Your task to perform on an android device: Open calendar and show me the first week of next month Image 0: 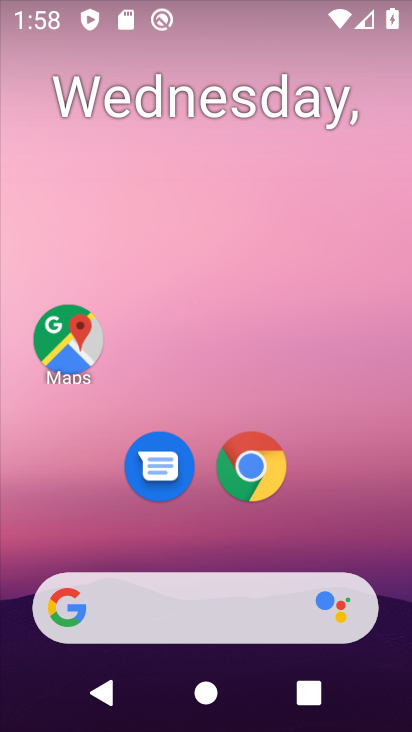
Step 0: drag from (338, 564) to (302, 133)
Your task to perform on an android device: Open calendar and show me the first week of next month Image 1: 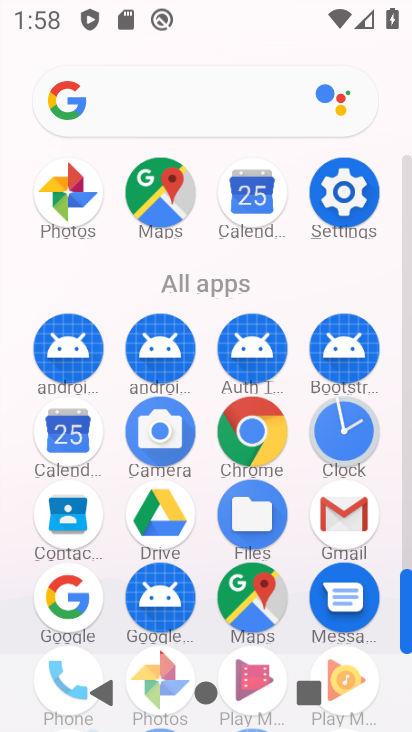
Step 1: click (61, 436)
Your task to perform on an android device: Open calendar and show me the first week of next month Image 2: 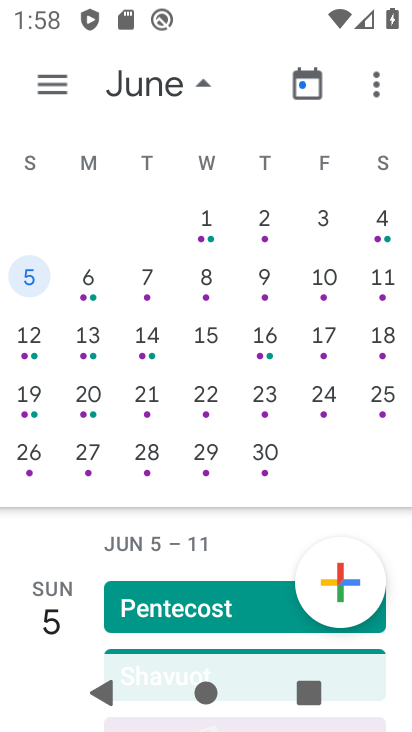
Step 2: drag from (254, 543) to (254, 280)
Your task to perform on an android device: Open calendar and show me the first week of next month Image 3: 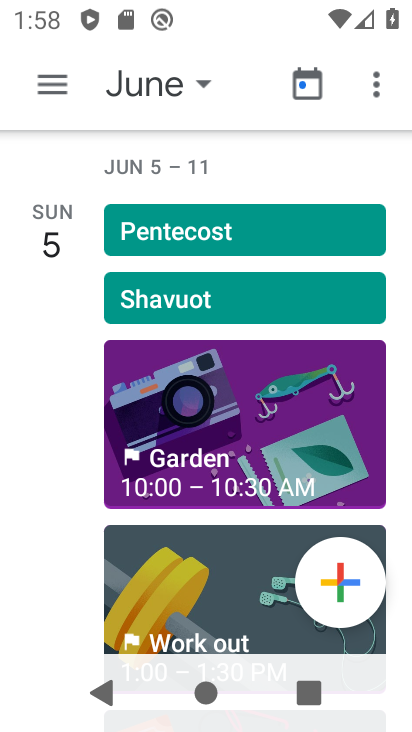
Step 3: click (166, 84)
Your task to perform on an android device: Open calendar and show me the first week of next month Image 4: 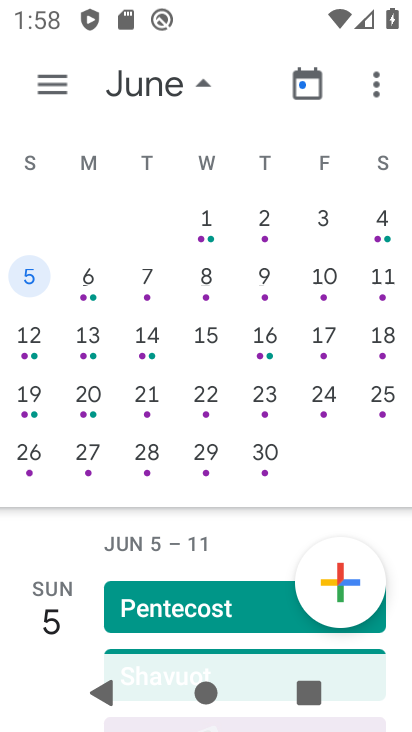
Step 4: click (209, 216)
Your task to perform on an android device: Open calendar and show me the first week of next month Image 5: 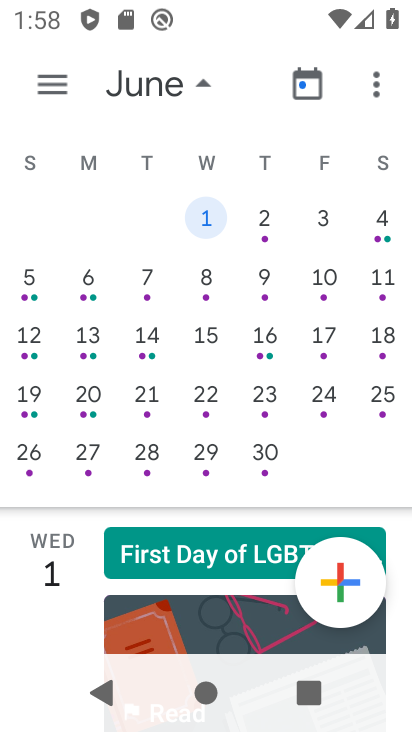
Step 5: task complete